Your task to perform on an android device: make emails show in primary in the gmail app Image 0: 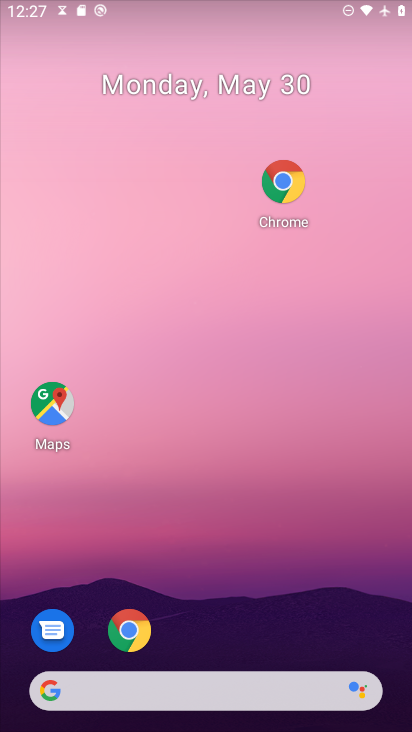
Step 0: click (218, 28)
Your task to perform on an android device: make emails show in primary in the gmail app Image 1: 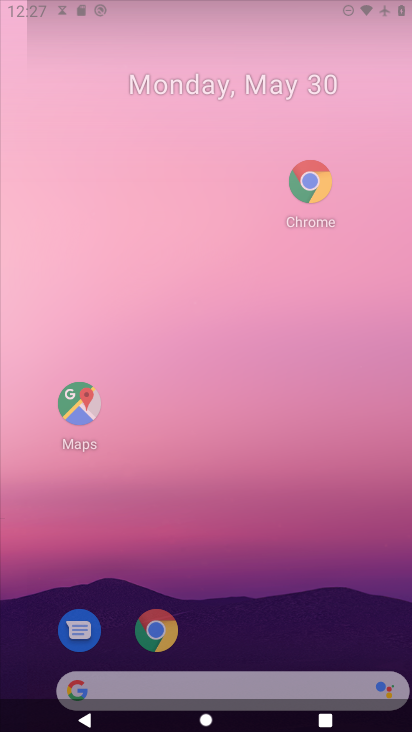
Step 1: drag from (230, 529) to (201, 24)
Your task to perform on an android device: make emails show in primary in the gmail app Image 2: 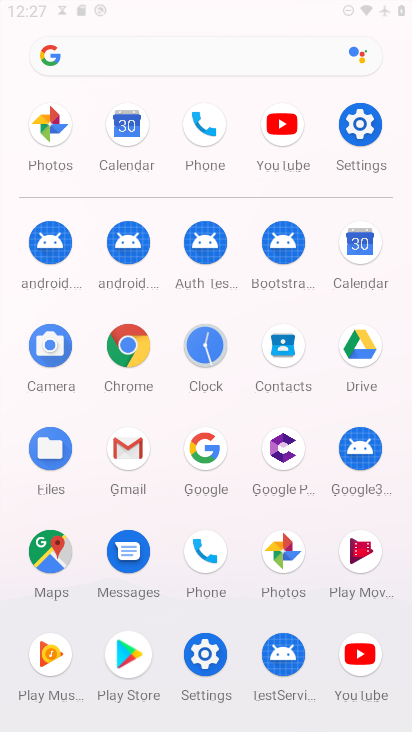
Step 2: drag from (185, 265) to (135, 18)
Your task to perform on an android device: make emails show in primary in the gmail app Image 3: 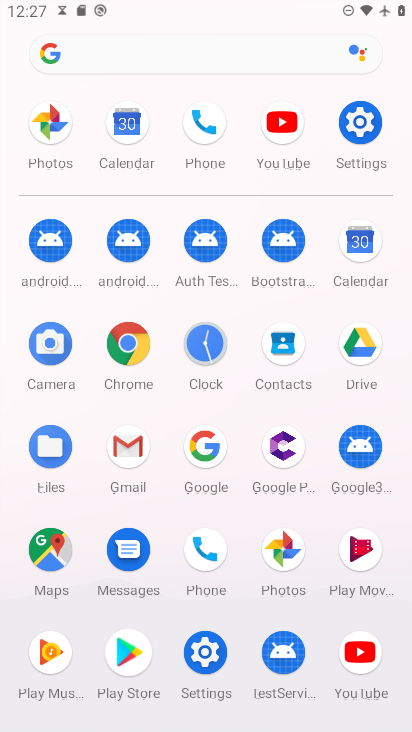
Step 3: click (127, 450)
Your task to perform on an android device: make emails show in primary in the gmail app Image 4: 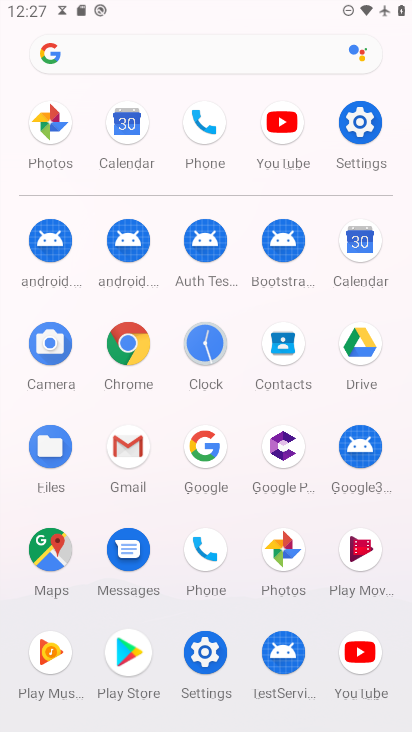
Step 4: click (126, 451)
Your task to perform on an android device: make emails show in primary in the gmail app Image 5: 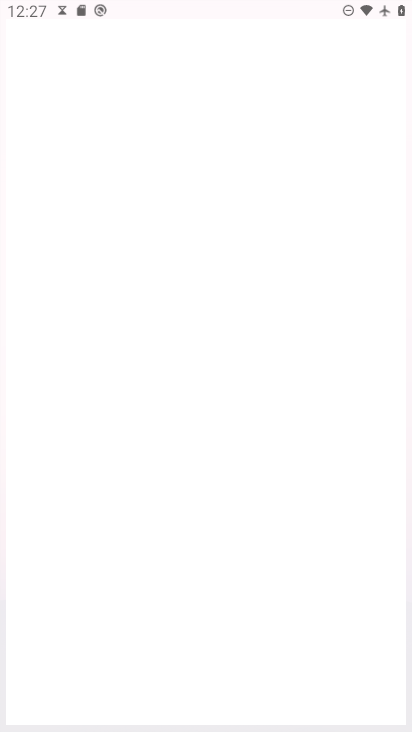
Step 5: click (127, 453)
Your task to perform on an android device: make emails show in primary in the gmail app Image 6: 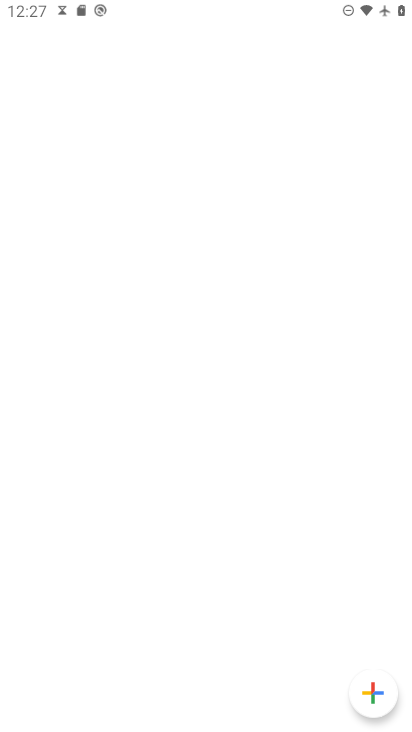
Step 6: click (134, 452)
Your task to perform on an android device: make emails show in primary in the gmail app Image 7: 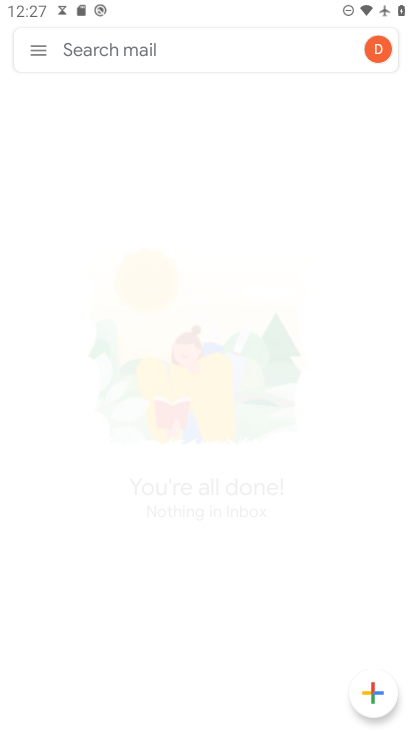
Step 7: click (134, 450)
Your task to perform on an android device: make emails show in primary in the gmail app Image 8: 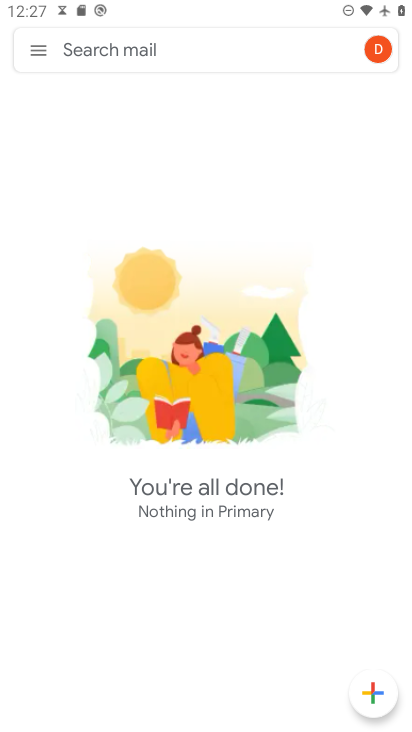
Step 8: click (42, 54)
Your task to perform on an android device: make emails show in primary in the gmail app Image 9: 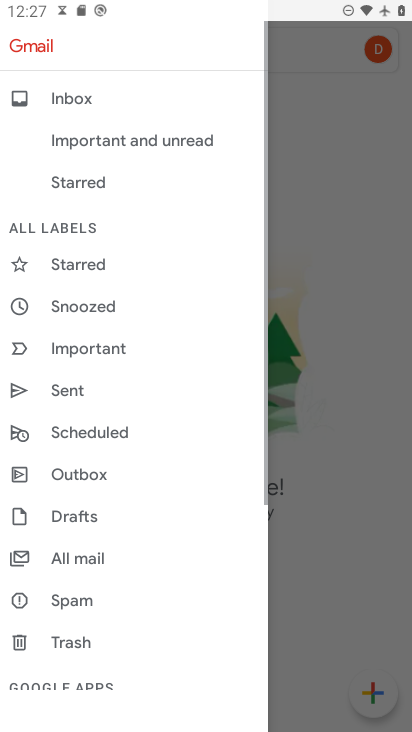
Step 9: click (53, 48)
Your task to perform on an android device: make emails show in primary in the gmail app Image 10: 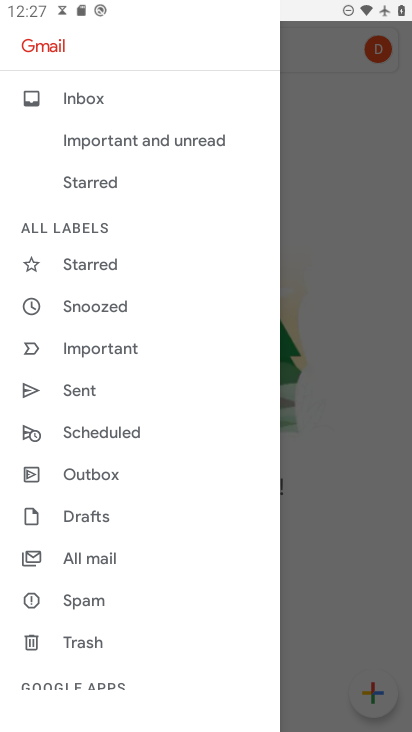
Step 10: drag from (94, 608) to (84, 148)
Your task to perform on an android device: make emails show in primary in the gmail app Image 11: 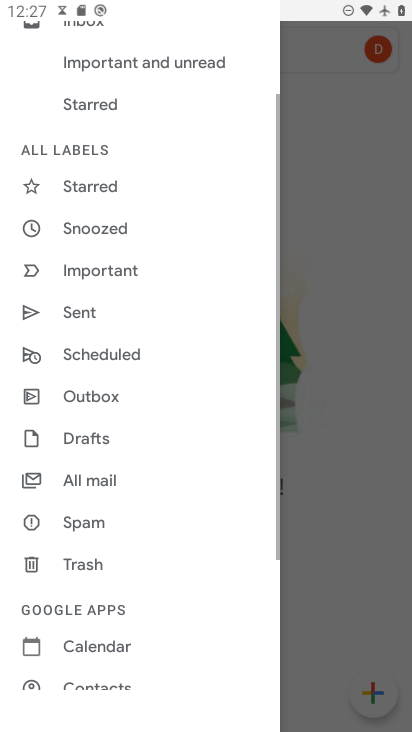
Step 11: drag from (93, 458) to (49, 60)
Your task to perform on an android device: make emails show in primary in the gmail app Image 12: 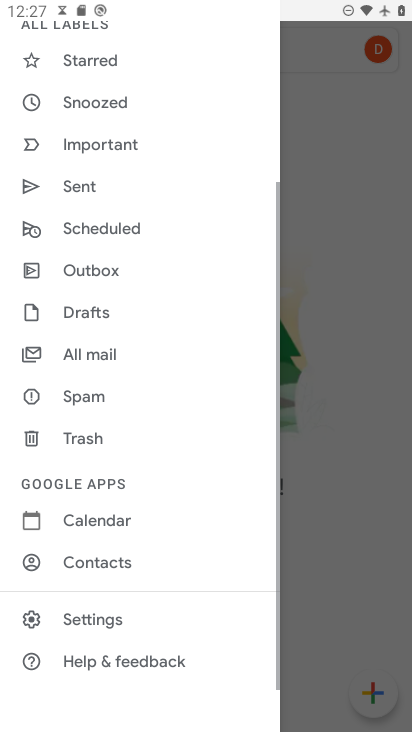
Step 12: drag from (47, 357) to (40, 4)
Your task to perform on an android device: make emails show in primary in the gmail app Image 13: 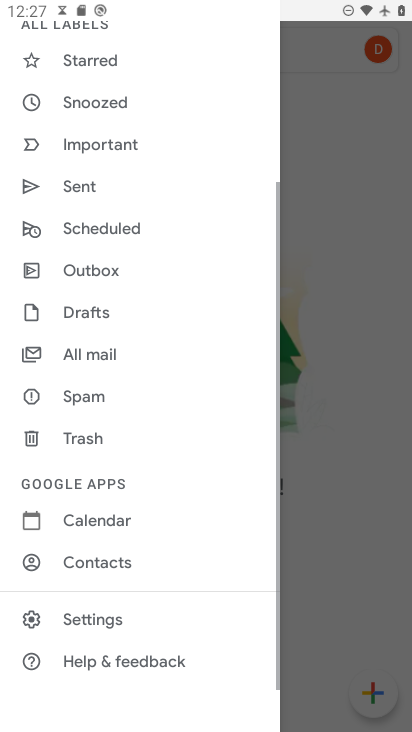
Step 13: click (87, 620)
Your task to perform on an android device: make emails show in primary in the gmail app Image 14: 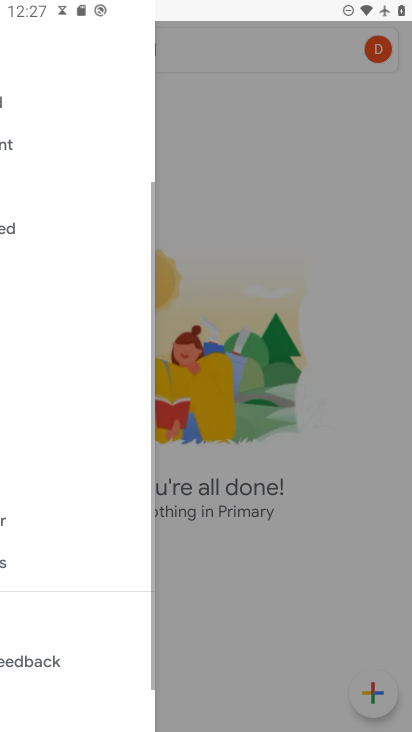
Step 14: click (87, 620)
Your task to perform on an android device: make emails show in primary in the gmail app Image 15: 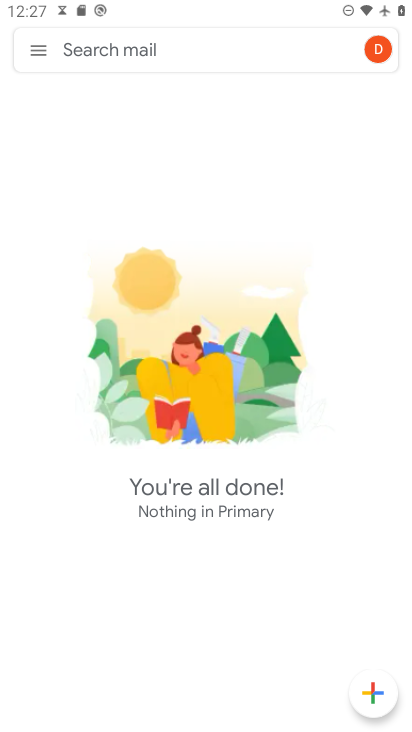
Step 15: click (86, 621)
Your task to perform on an android device: make emails show in primary in the gmail app Image 16: 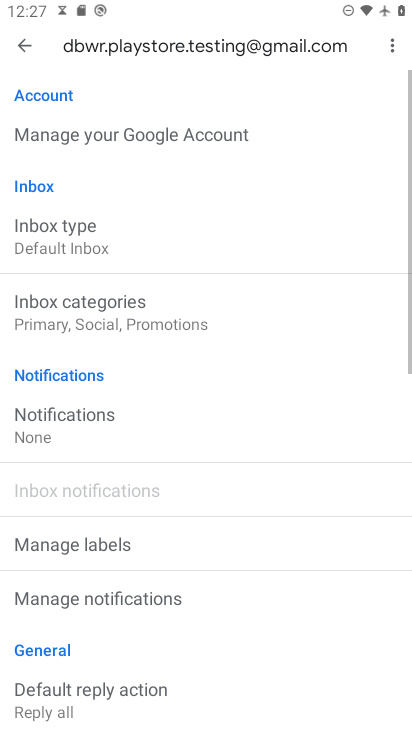
Step 16: drag from (83, 523) to (22, 53)
Your task to perform on an android device: make emails show in primary in the gmail app Image 17: 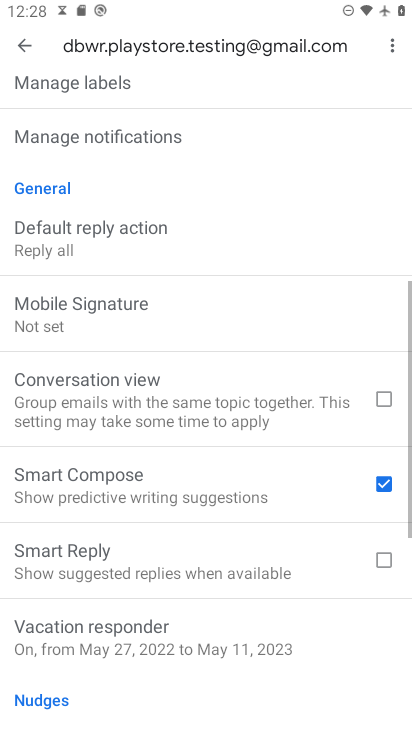
Step 17: drag from (90, 394) to (120, 42)
Your task to perform on an android device: make emails show in primary in the gmail app Image 18: 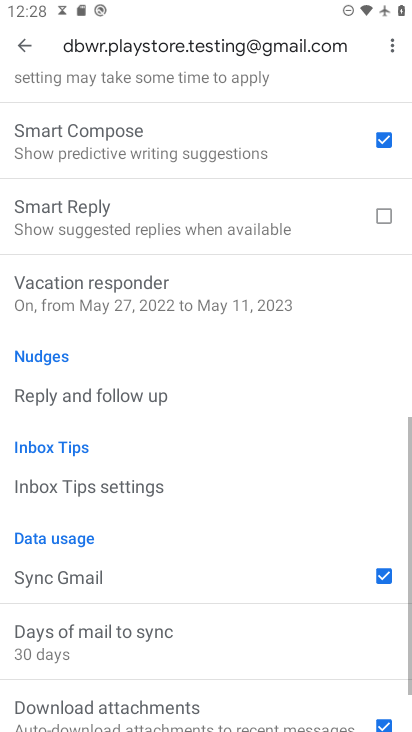
Step 18: drag from (146, 468) to (220, 43)
Your task to perform on an android device: make emails show in primary in the gmail app Image 19: 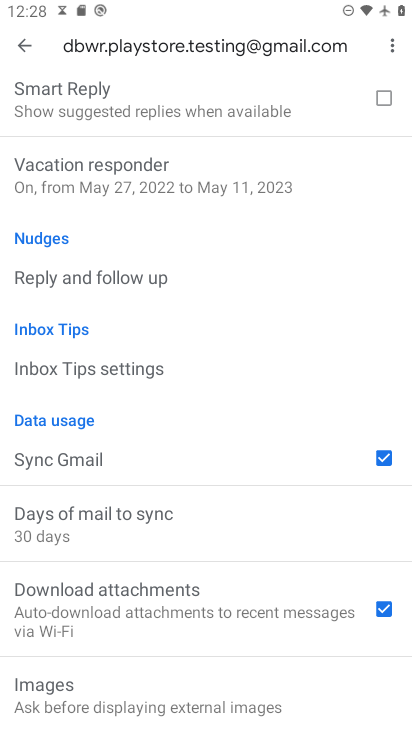
Step 19: drag from (124, 225) to (167, 483)
Your task to perform on an android device: make emails show in primary in the gmail app Image 20: 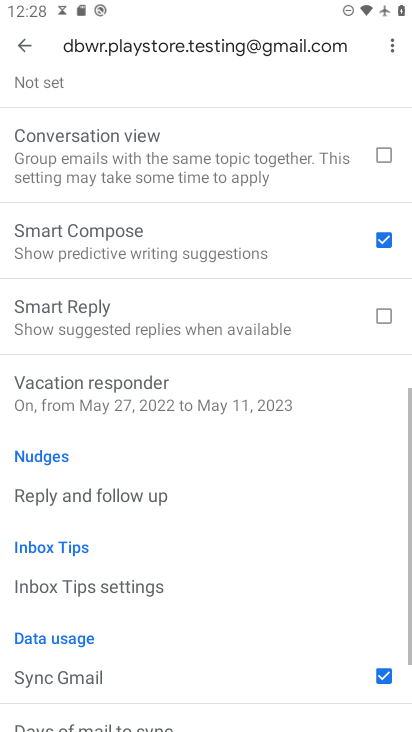
Step 20: drag from (109, 283) to (189, 426)
Your task to perform on an android device: make emails show in primary in the gmail app Image 21: 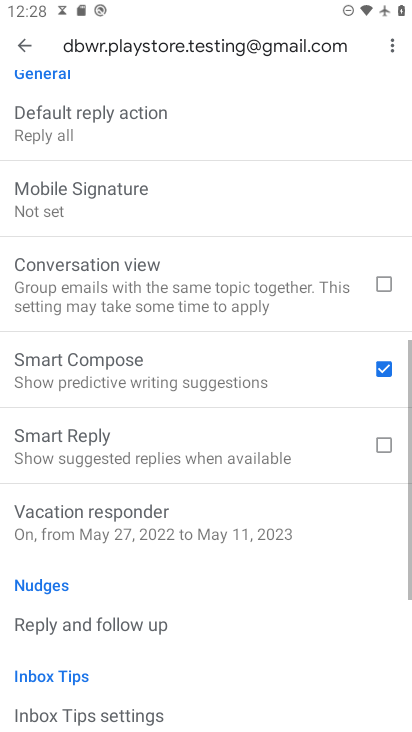
Step 21: drag from (133, 208) to (177, 511)
Your task to perform on an android device: make emails show in primary in the gmail app Image 22: 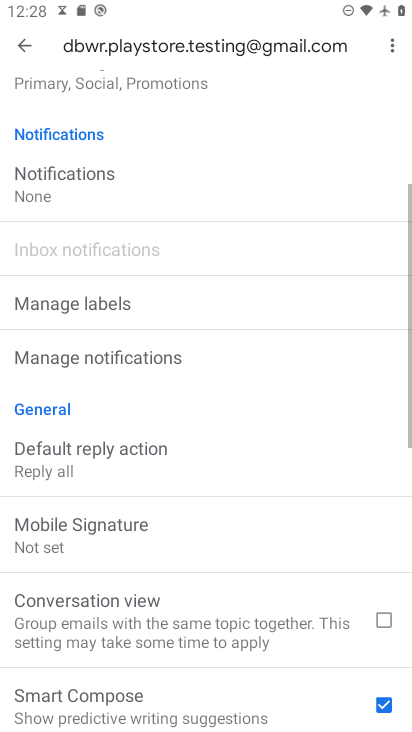
Step 22: drag from (136, 223) to (136, 557)
Your task to perform on an android device: make emails show in primary in the gmail app Image 23: 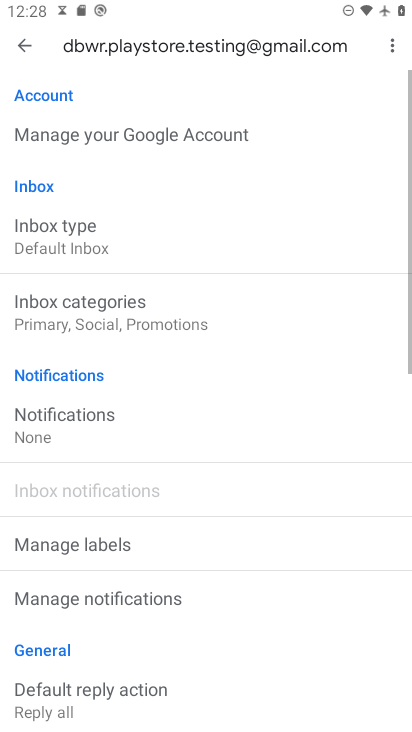
Step 23: drag from (87, 302) to (125, 490)
Your task to perform on an android device: make emails show in primary in the gmail app Image 24: 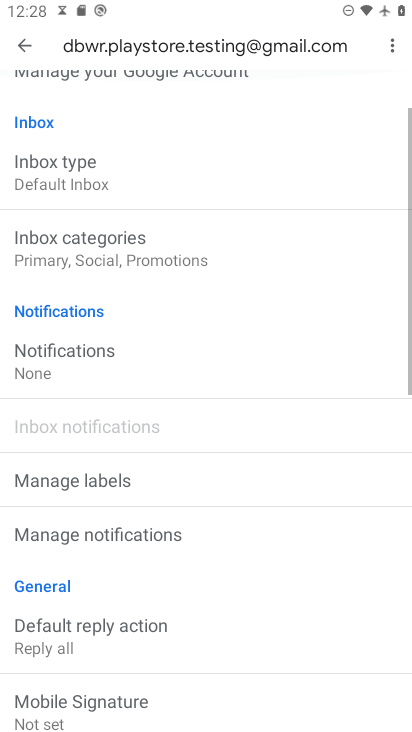
Step 24: drag from (220, 495) to (188, 646)
Your task to perform on an android device: make emails show in primary in the gmail app Image 25: 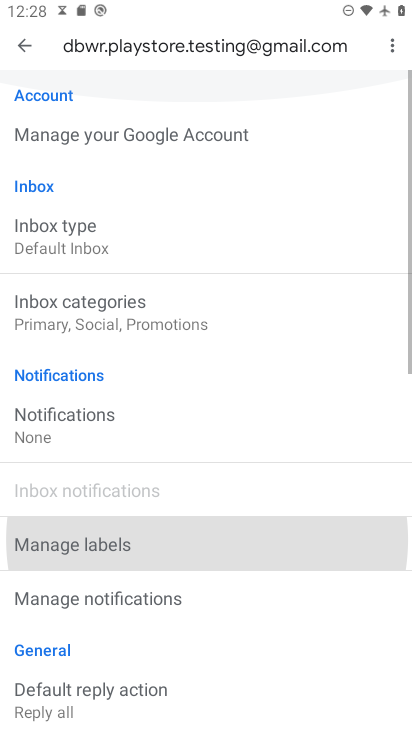
Step 25: drag from (139, 247) to (142, 674)
Your task to perform on an android device: make emails show in primary in the gmail app Image 26: 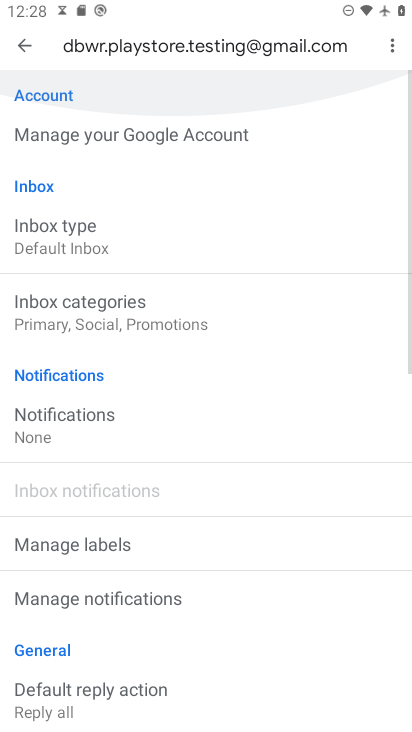
Step 26: drag from (102, 155) to (119, 579)
Your task to perform on an android device: make emails show in primary in the gmail app Image 27: 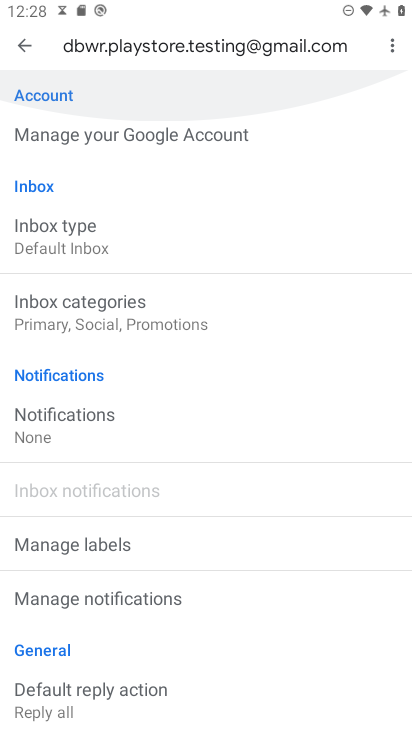
Step 27: drag from (53, 191) to (150, 563)
Your task to perform on an android device: make emails show in primary in the gmail app Image 28: 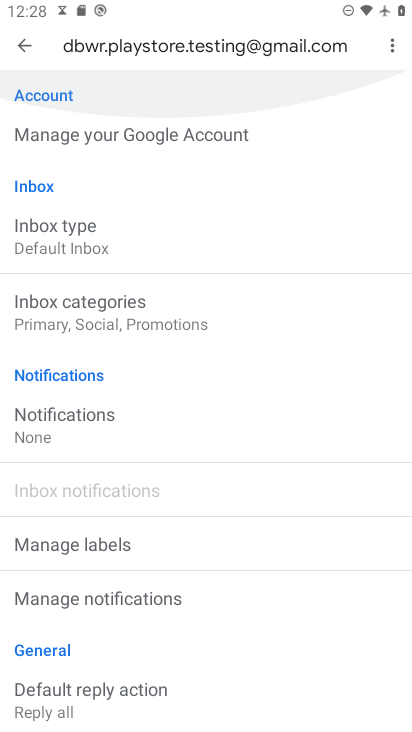
Step 28: drag from (130, 232) to (220, 620)
Your task to perform on an android device: make emails show in primary in the gmail app Image 29: 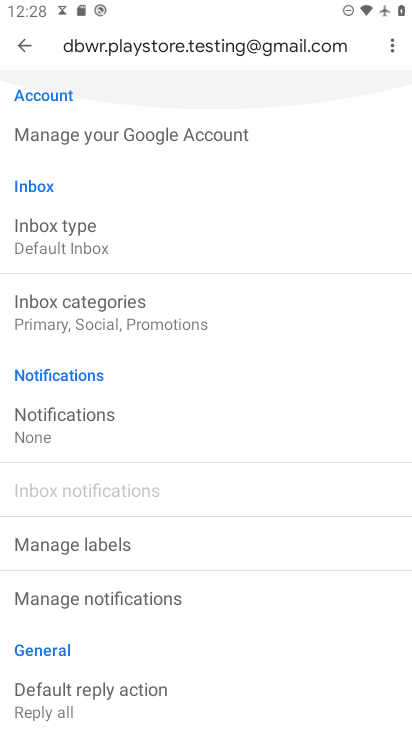
Step 29: drag from (114, 353) to (139, 530)
Your task to perform on an android device: make emails show in primary in the gmail app Image 30: 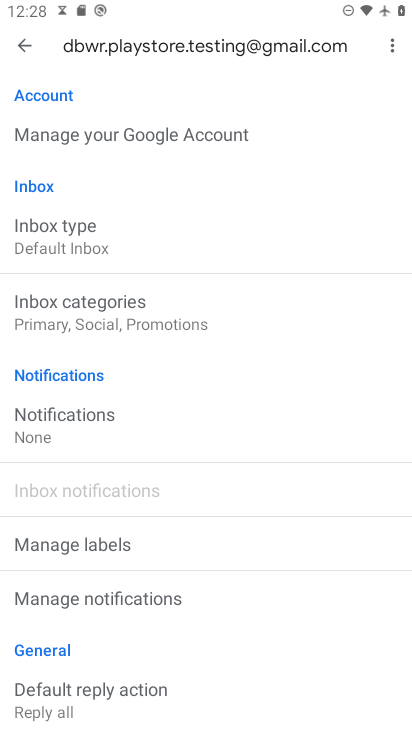
Step 30: click (62, 315)
Your task to perform on an android device: make emails show in primary in the gmail app Image 31: 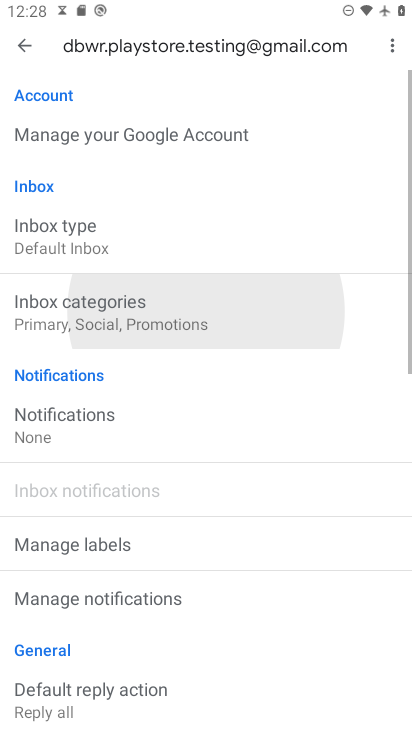
Step 31: click (71, 314)
Your task to perform on an android device: make emails show in primary in the gmail app Image 32: 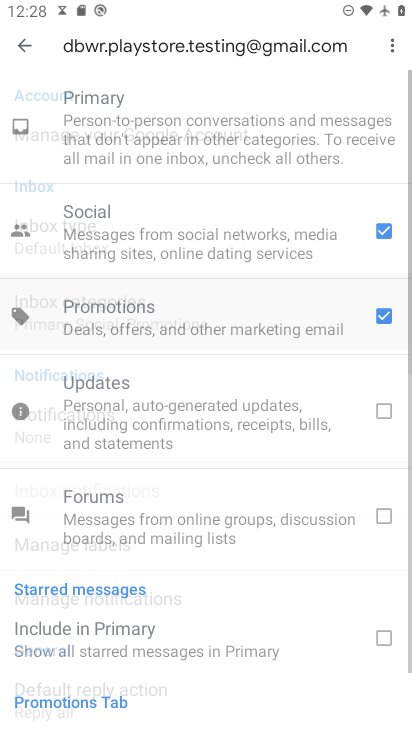
Step 32: click (71, 314)
Your task to perform on an android device: make emails show in primary in the gmail app Image 33: 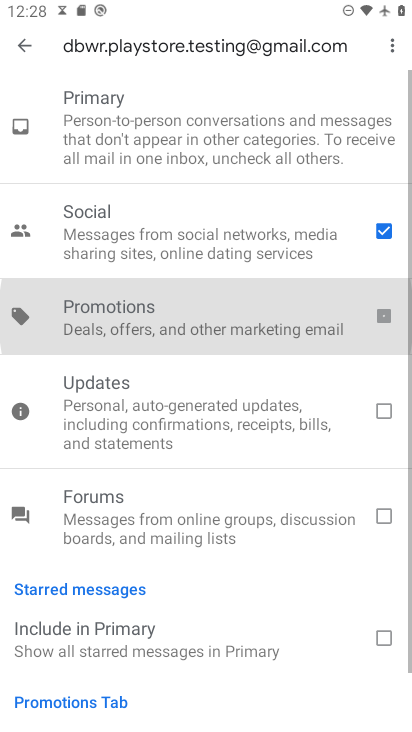
Step 33: click (71, 314)
Your task to perform on an android device: make emails show in primary in the gmail app Image 34: 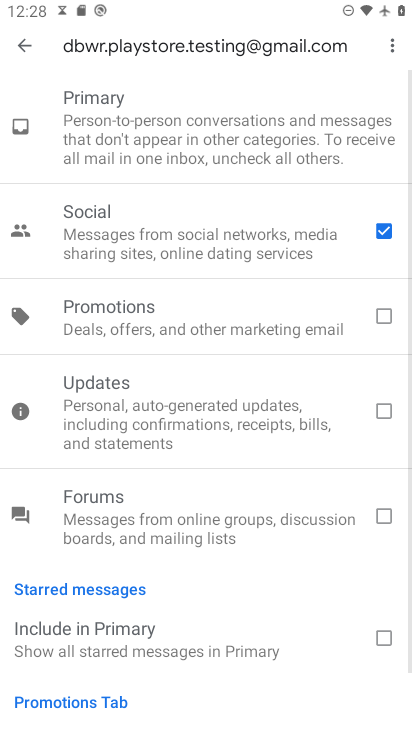
Step 34: click (152, 128)
Your task to perform on an android device: make emails show in primary in the gmail app Image 35: 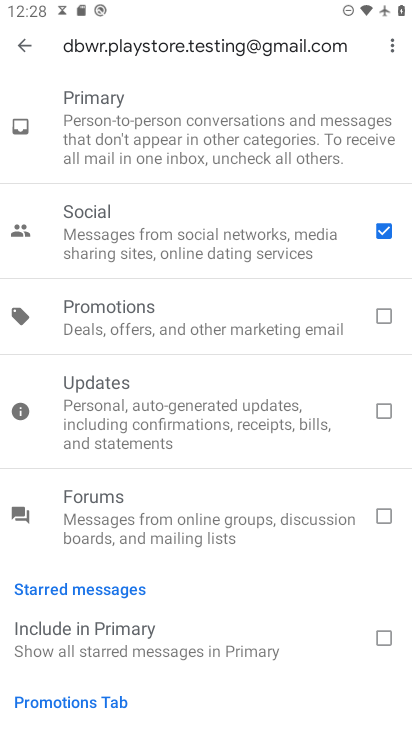
Step 35: click (152, 128)
Your task to perform on an android device: make emails show in primary in the gmail app Image 36: 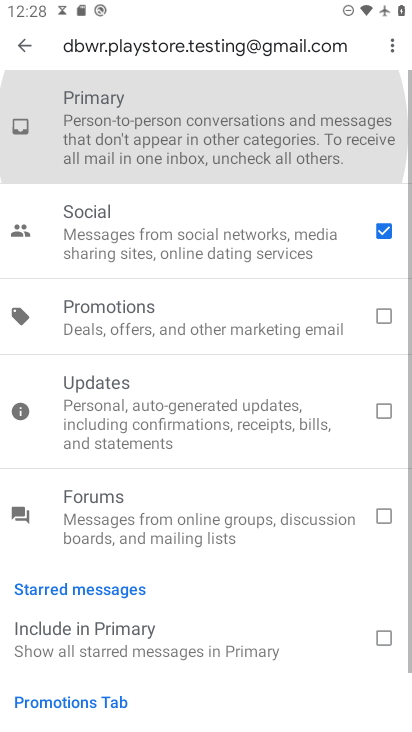
Step 36: click (152, 128)
Your task to perform on an android device: make emails show in primary in the gmail app Image 37: 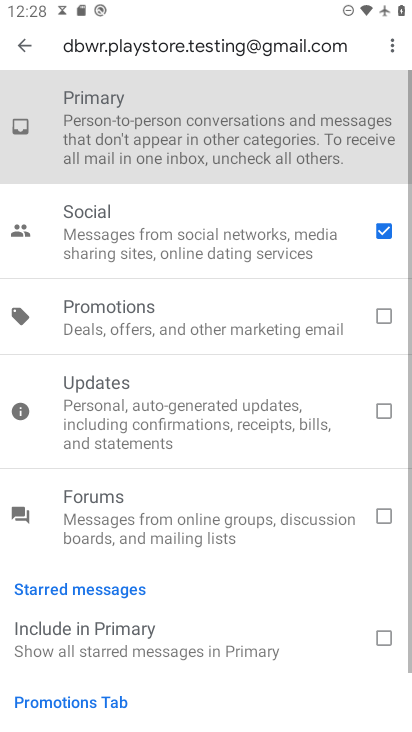
Step 37: click (152, 128)
Your task to perform on an android device: make emails show in primary in the gmail app Image 38: 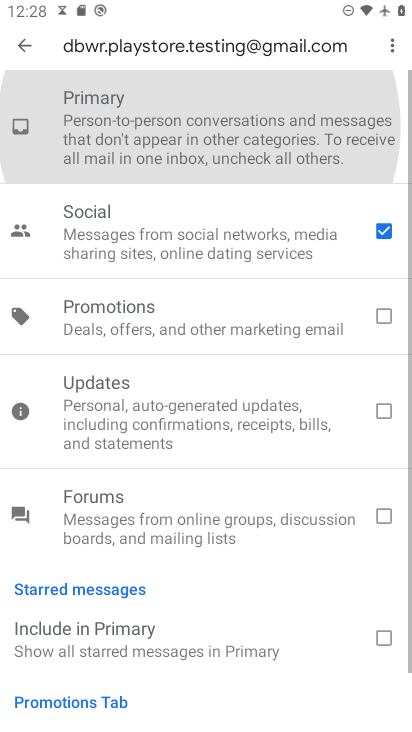
Step 38: click (152, 128)
Your task to perform on an android device: make emails show in primary in the gmail app Image 39: 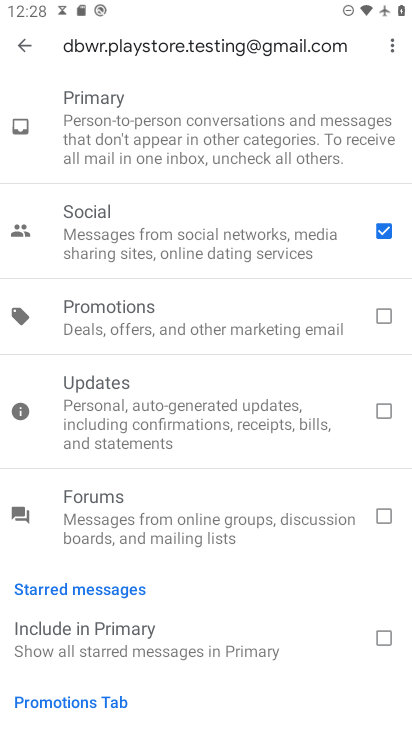
Step 39: task complete